Your task to perform on an android device: turn on data saver in the chrome app Image 0: 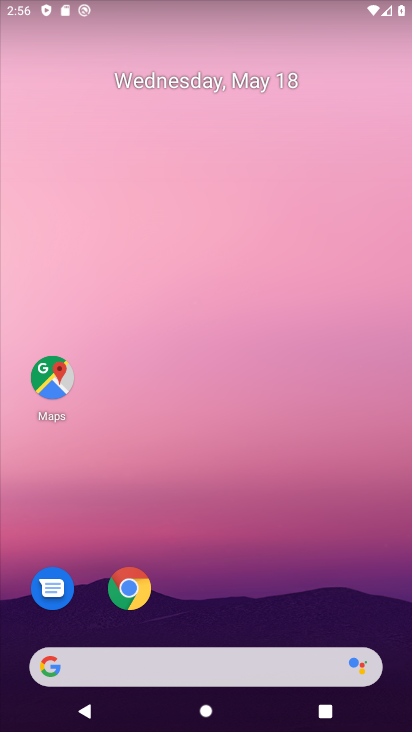
Step 0: click (123, 601)
Your task to perform on an android device: turn on data saver in the chrome app Image 1: 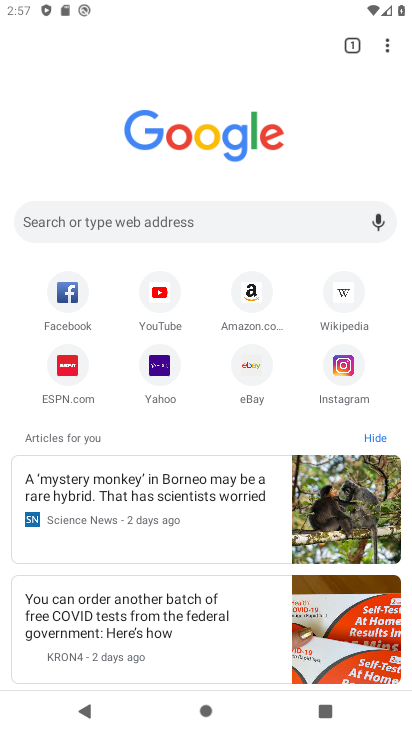
Step 1: drag from (391, 40) to (232, 370)
Your task to perform on an android device: turn on data saver in the chrome app Image 2: 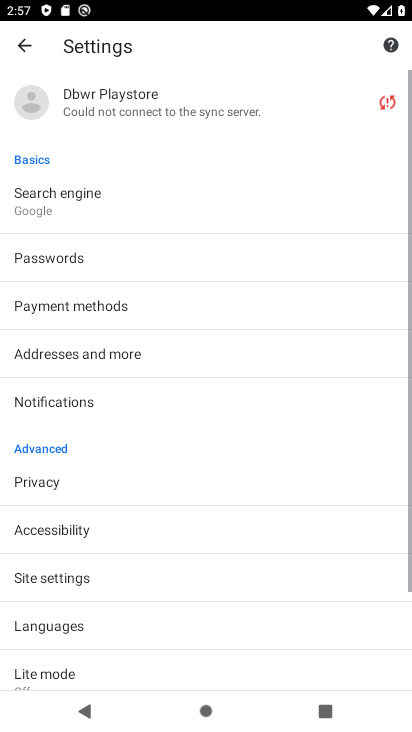
Step 2: drag from (210, 543) to (192, 385)
Your task to perform on an android device: turn on data saver in the chrome app Image 3: 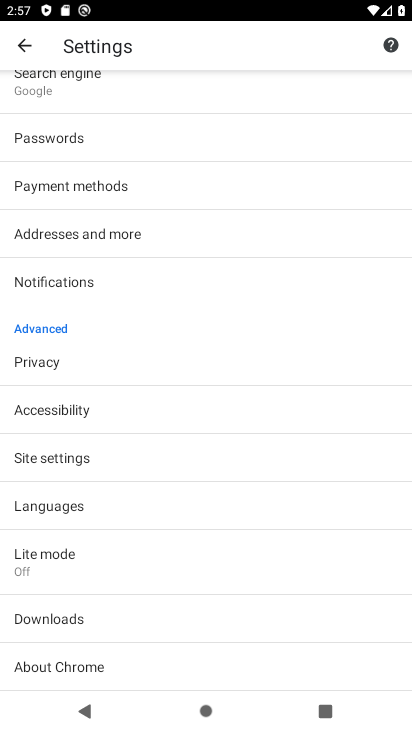
Step 3: click (82, 552)
Your task to perform on an android device: turn on data saver in the chrome app Image 4: 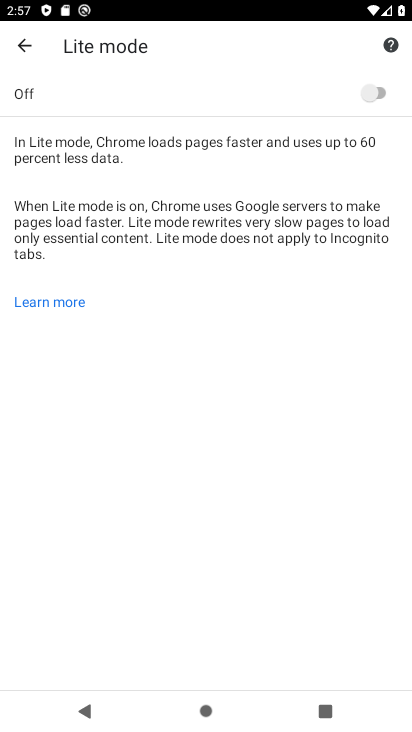
Step 4: click (376, 94)
Your task to perform on an android device: turn on data saver in the chrome app Image 5: 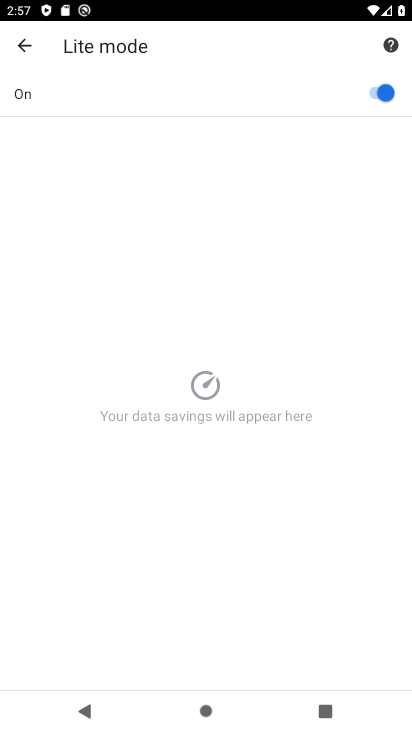
Step 5: task complete